Your task to perform on an android device: set an alarm Image 0: 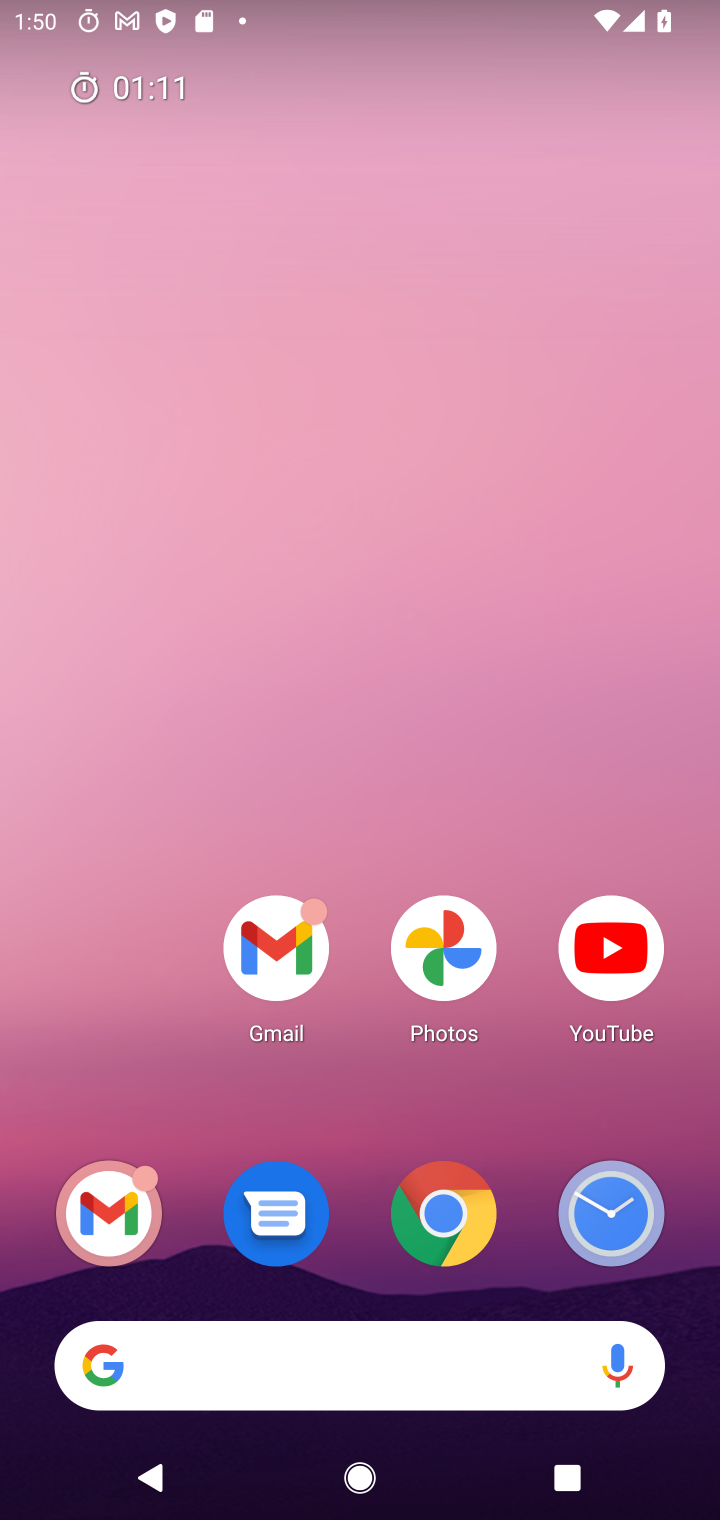
Step 0: drag from (486, 463) to (501, 0)
Your task to perform on an android device: set an alarm Image 1: 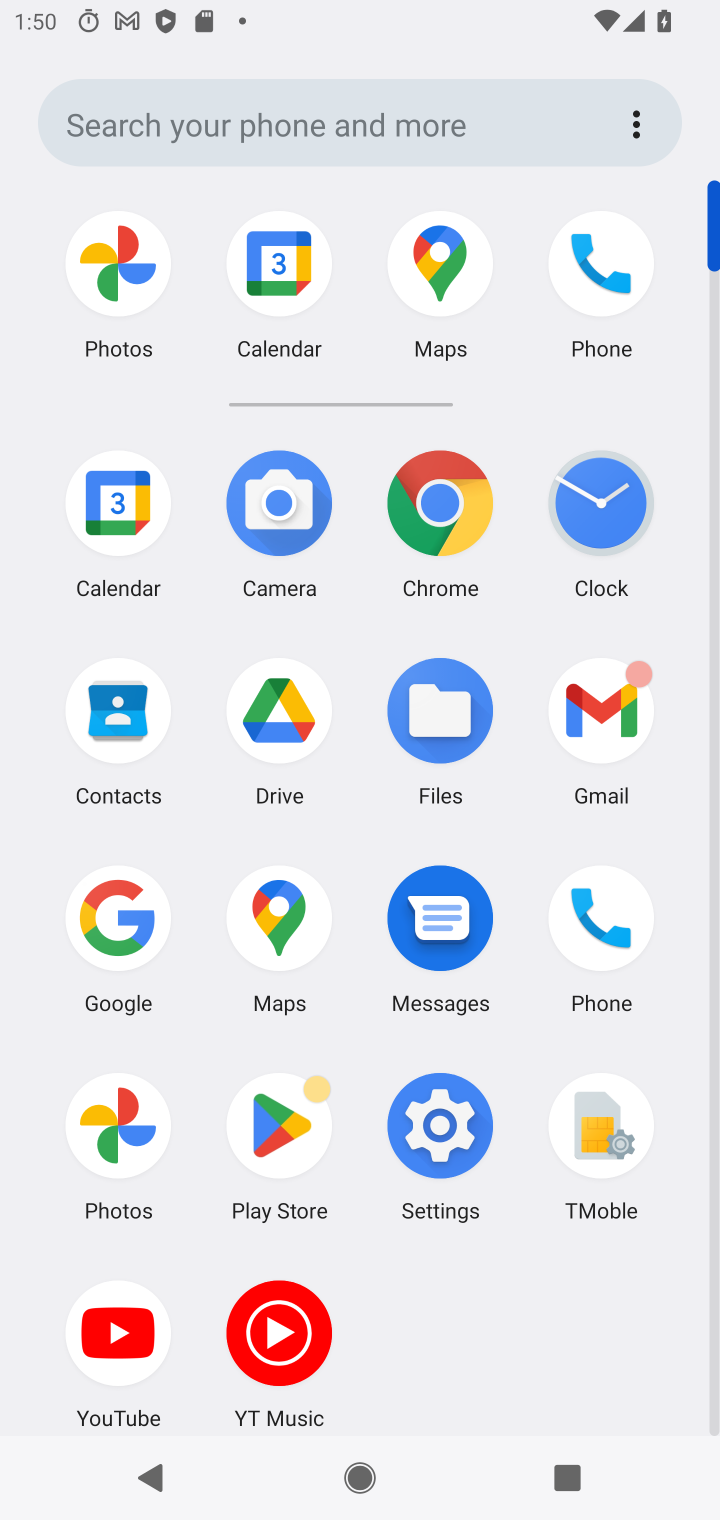
Step 1: click (601, 492)
Your task to perform on an android device: set an alarm Image 2: 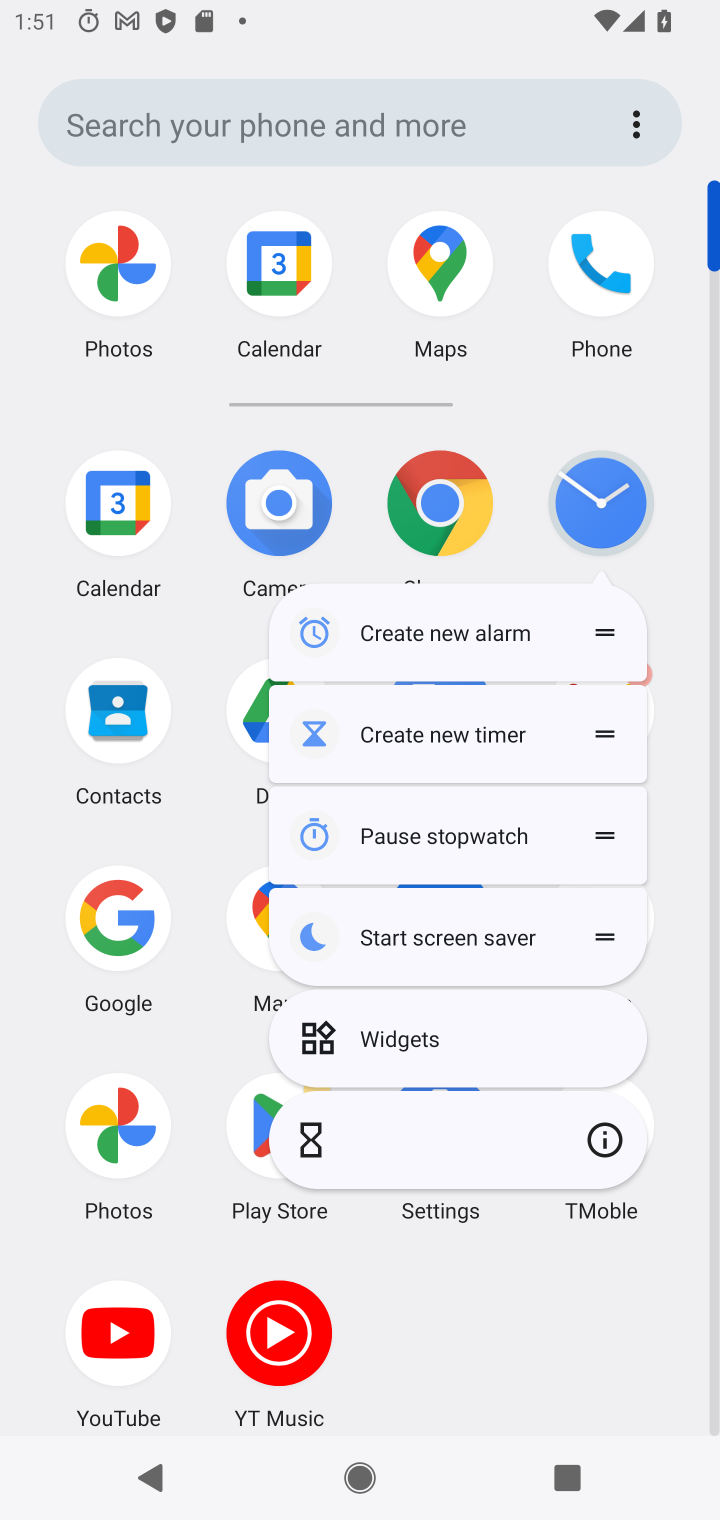
Step 2: click (605, 507)
Your task to perform on an android device: set an alarm Image 3: 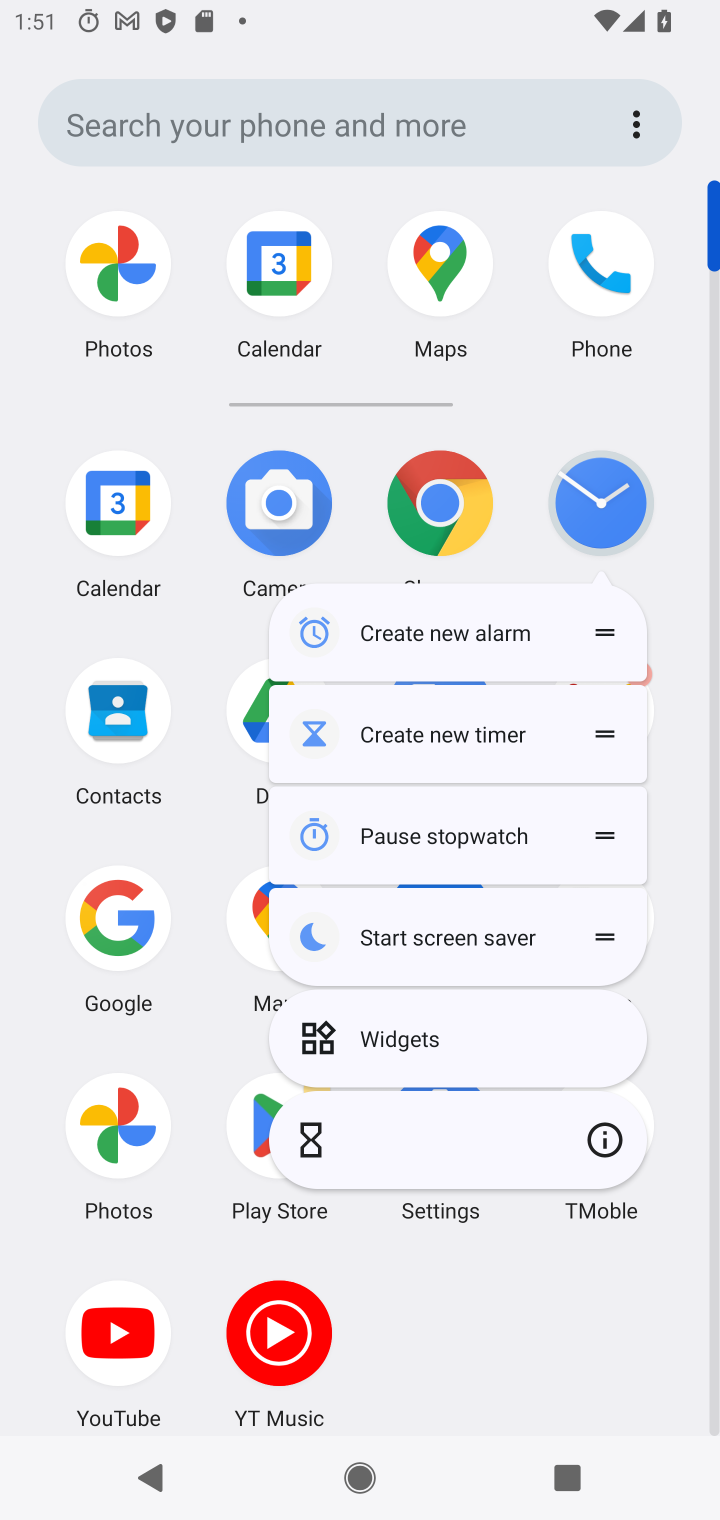
Step 3: click (593, 516)
Your task to perform on an android device: set an alarm Image 4: 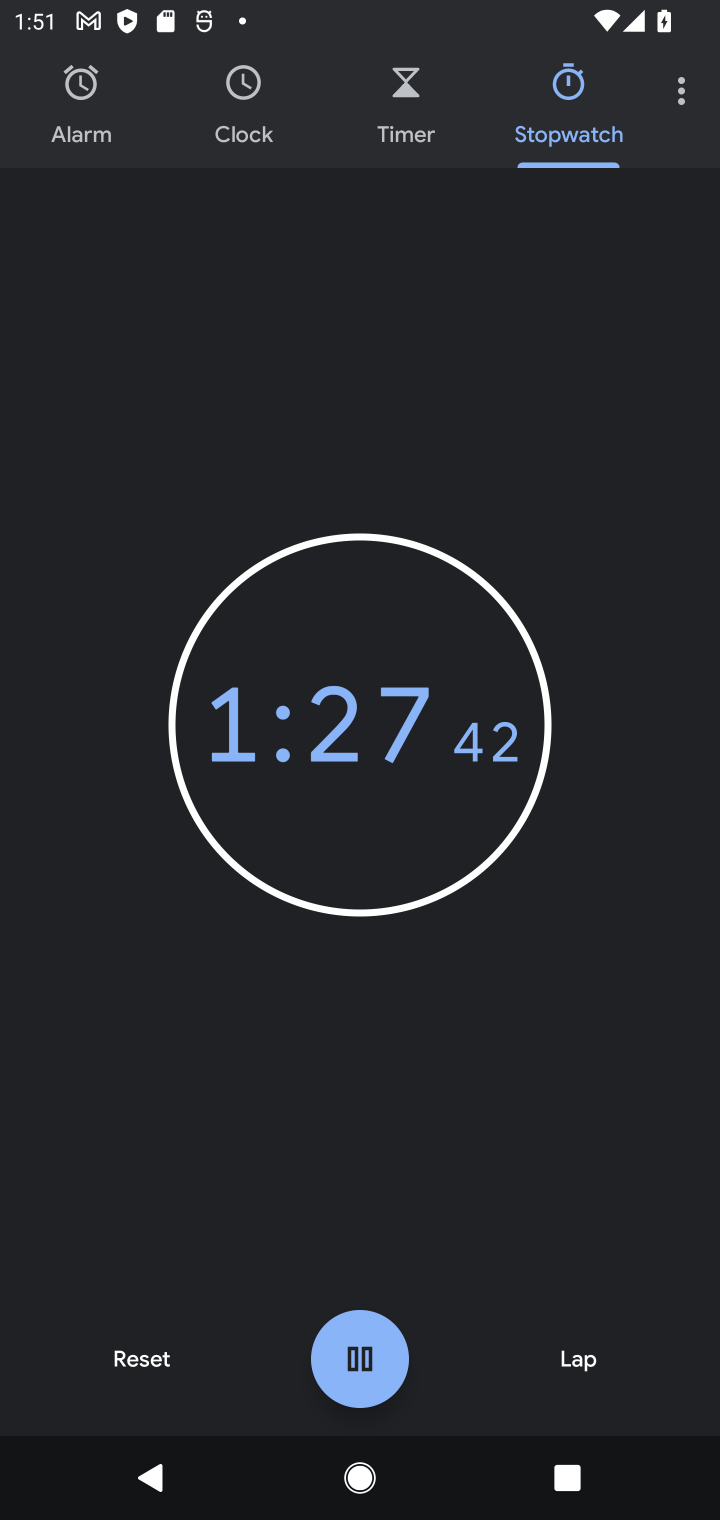
Step 4: click (69, 87)
Your task to perform on an android device: set an alarm Image 5: 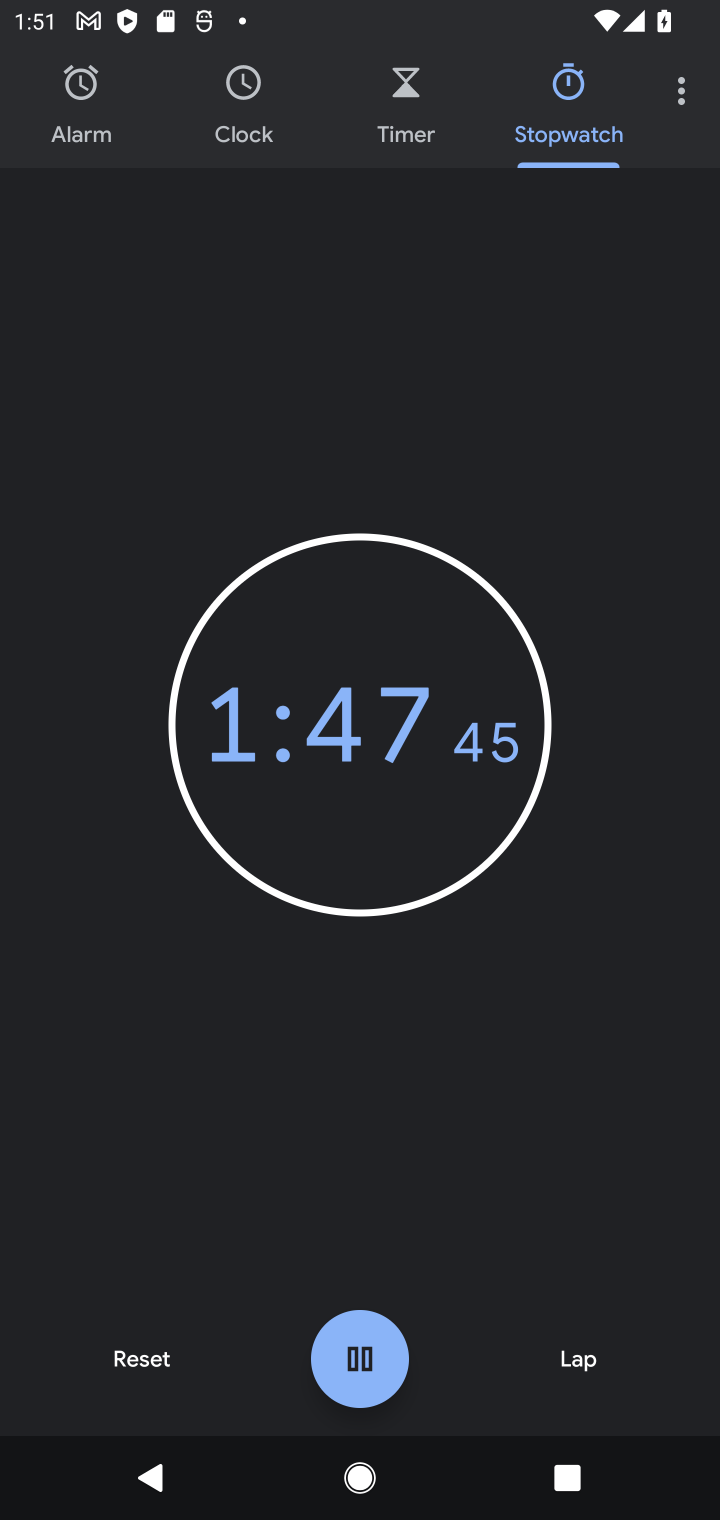
Step 5: click (99, 104)
Your task to perform on an android device: set an alarm Image 6: 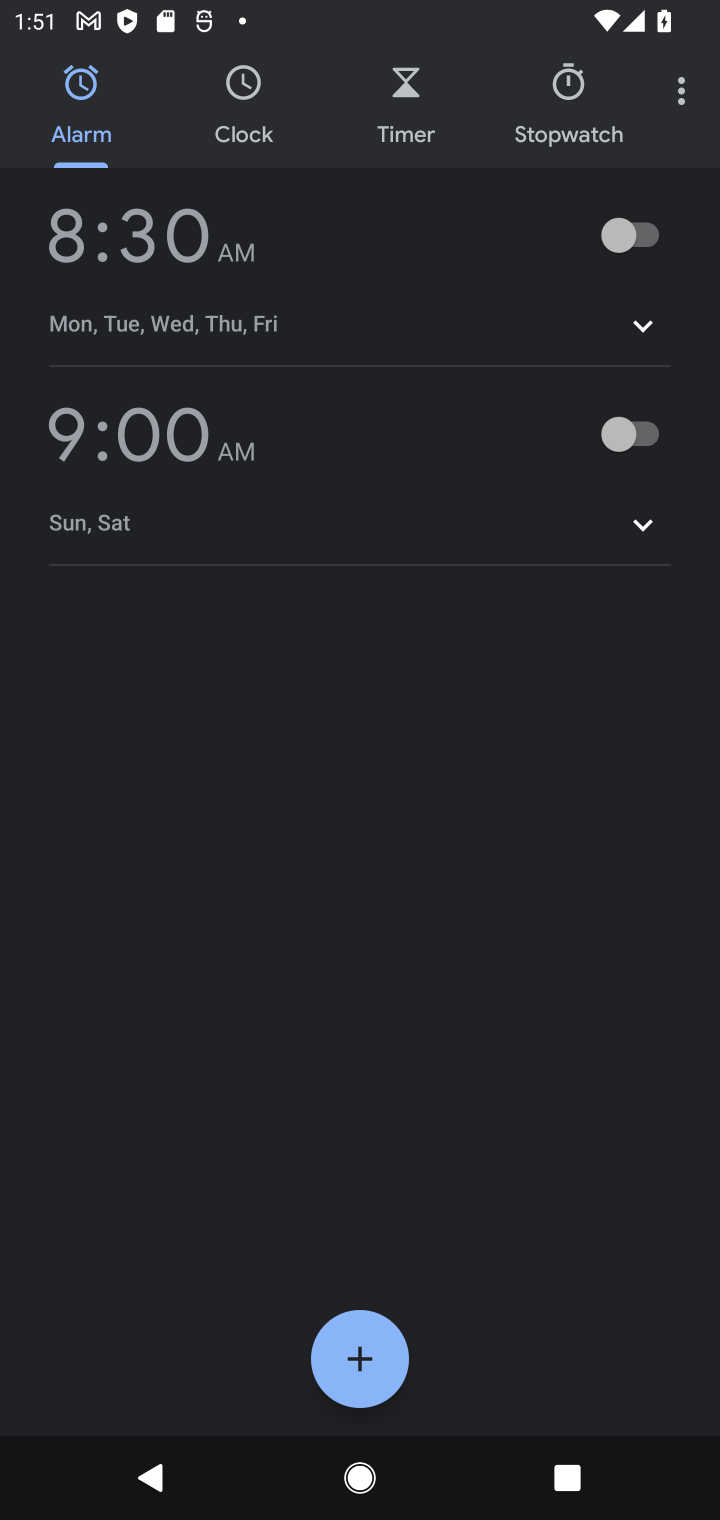
Step 6: click (642, 245)
Your task to perform on an android device: set an alarm Image 7: 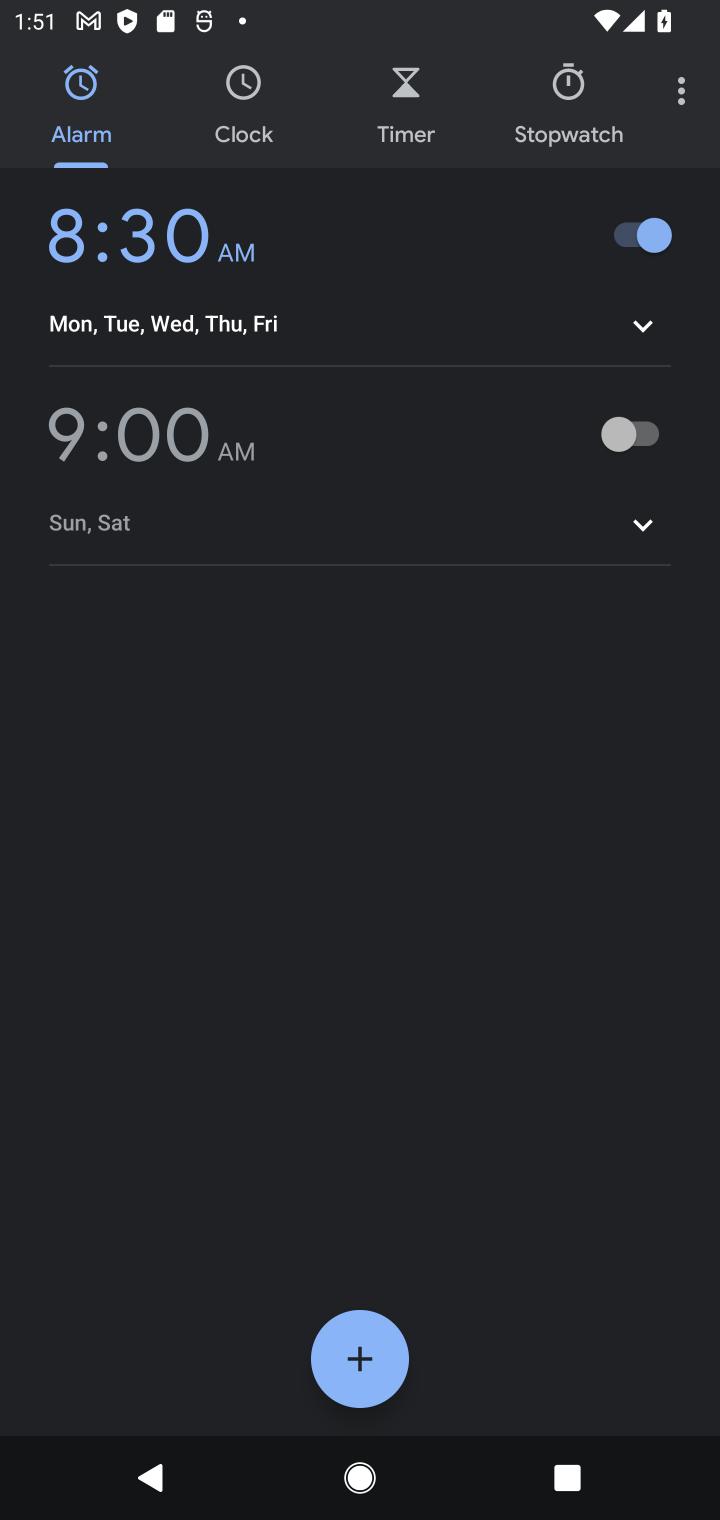
Step 7: task complete